Your task to perform on an android device: empty trash in google photos Image 0: 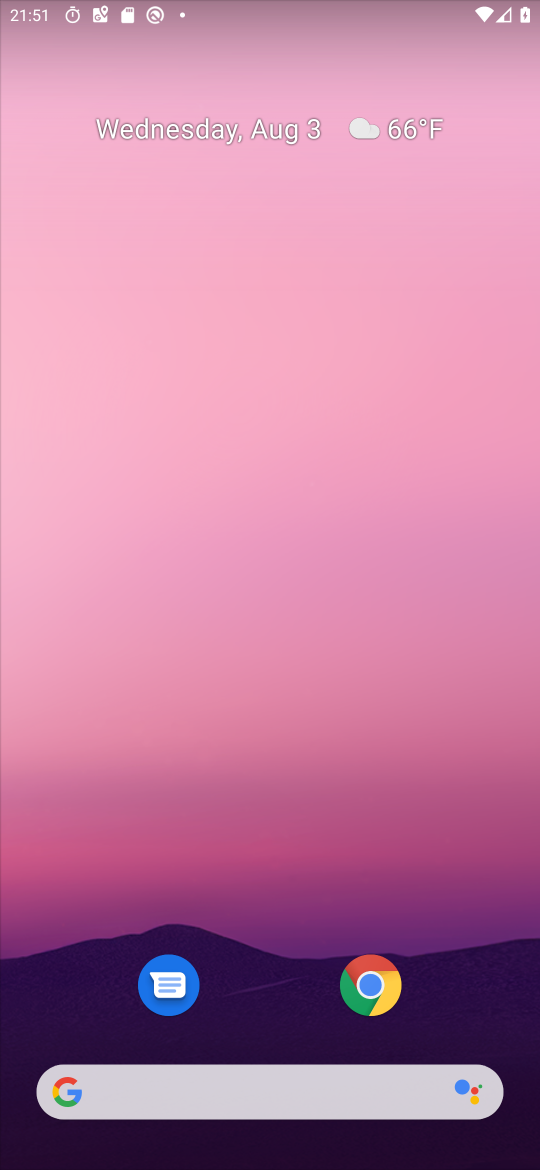
Step 0: drag from (248, 1016) to (183, 206)
Your task to perform on an android device: empty trash in google photos Image 1: 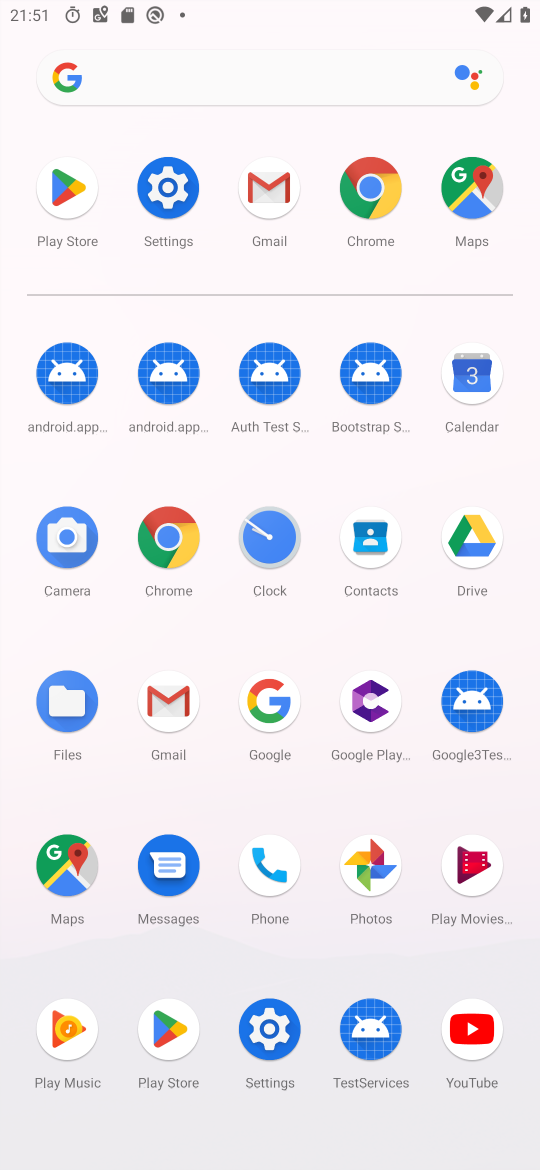
Step 1: click (391, 867)
Your task to perform on an android device: empty trash in google photos Image 2: 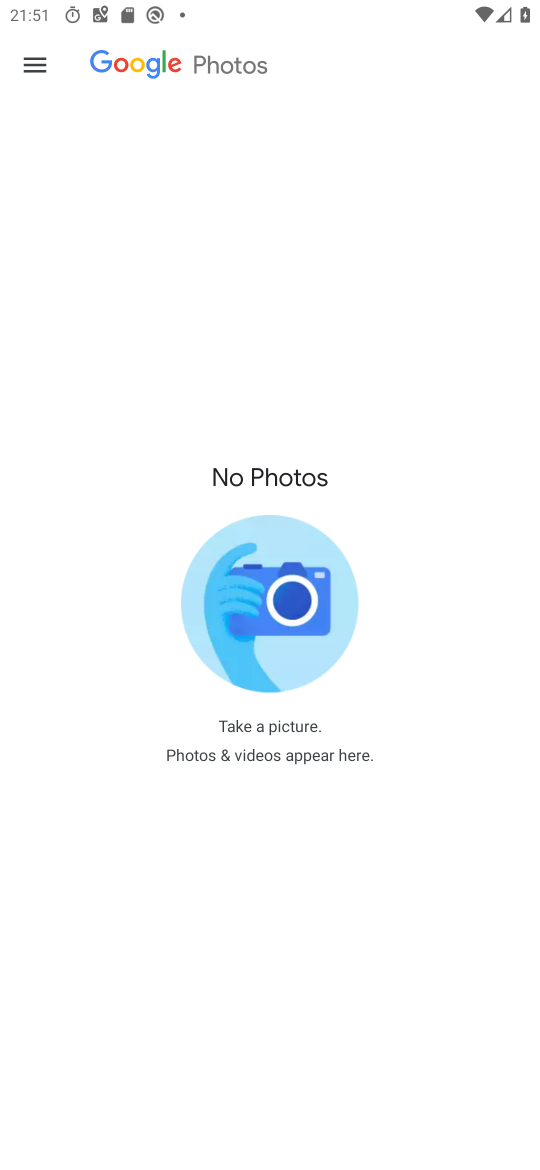
Step 2: click (37, 77)
Your task to perform on an android device: empty trash in google photos Image 3: 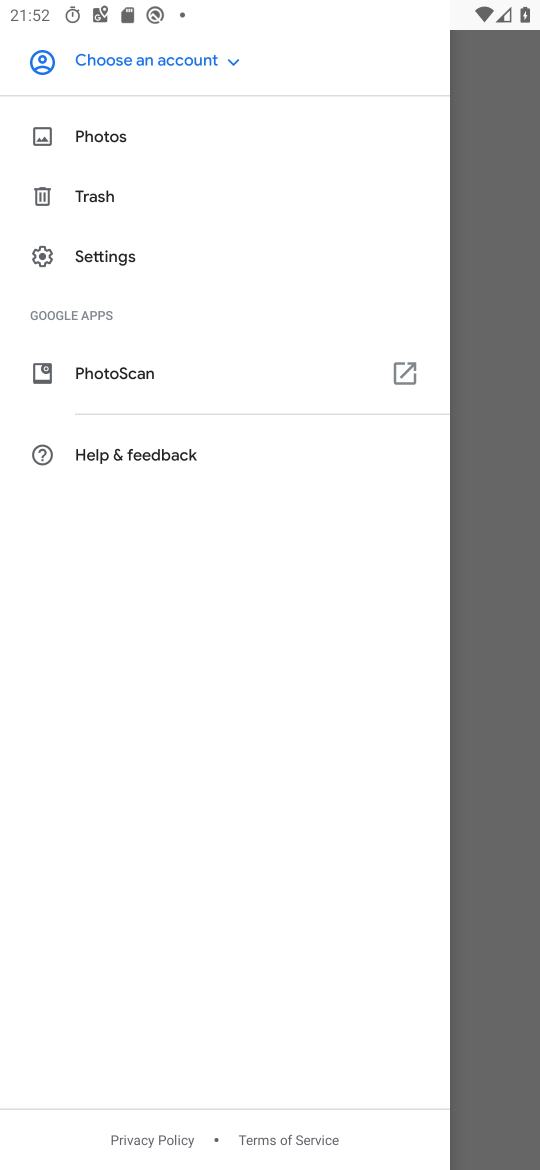
Step 3: click (108, 207)
Your task to perform on an android device: empty trash in google photos Image 4: 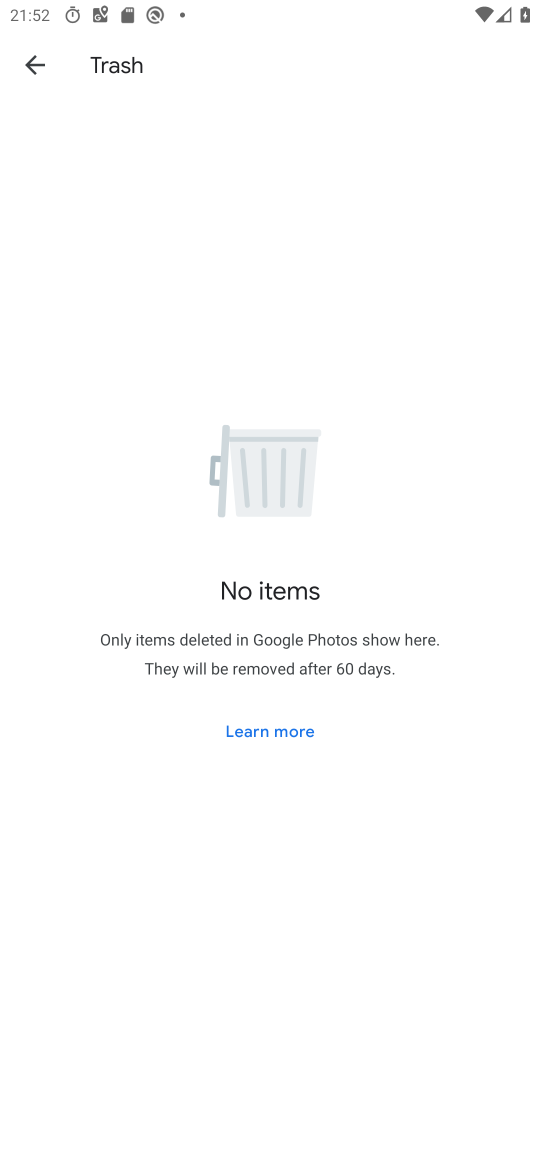
Step 4: task complete